Your task to perform on an android device: check android version Image 0: 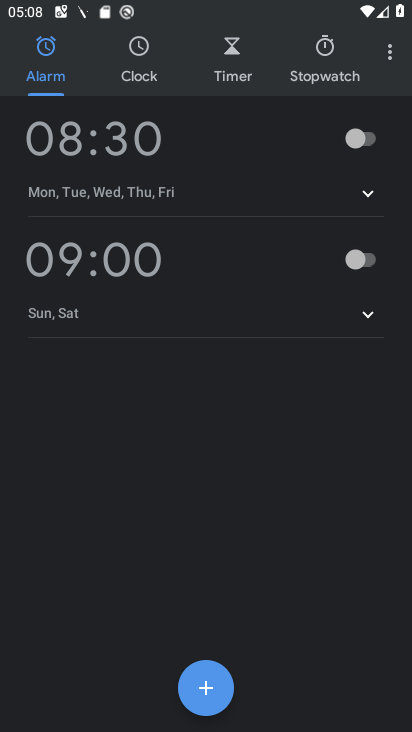
Step 0: press home button
Your task to perform on an android device: check android version Image 1: 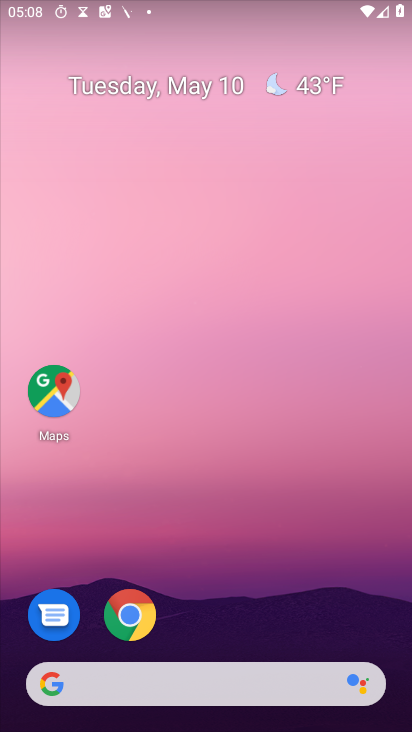
Step 1: drag from (242, 646) to (331, 37)
Your task to perform on an android device: check android version Image 2: 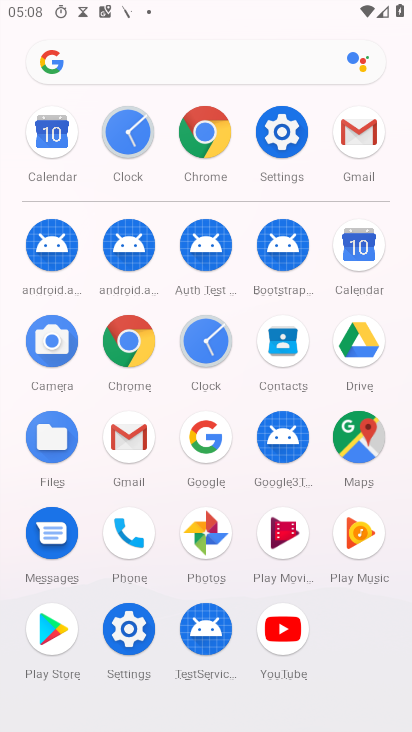
Step 2: click (292, 133)
Your task to perform on an android device: check android version Image 3: 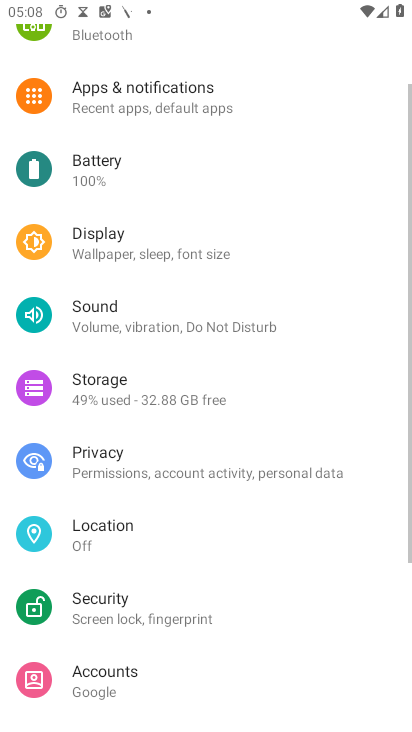
Step 3: drag from (233, 686) to (349, 7)
Your task to perform on an android device: check android version Image 4: 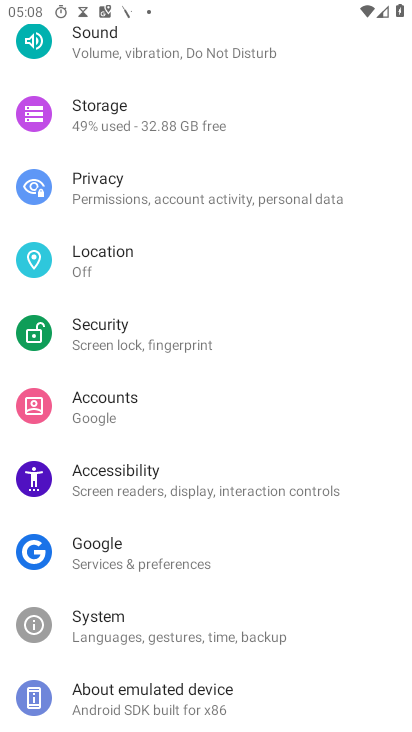
Step 4: click (168, 702)
Your task to perform on an android device: check android version Image 5: 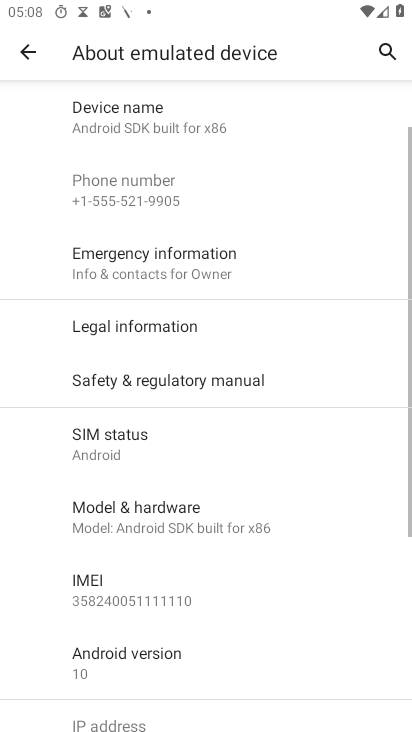
Step 5: drag from (208, 651) to (287, 295)
Your task to perform on an android device: check android version Image 6: 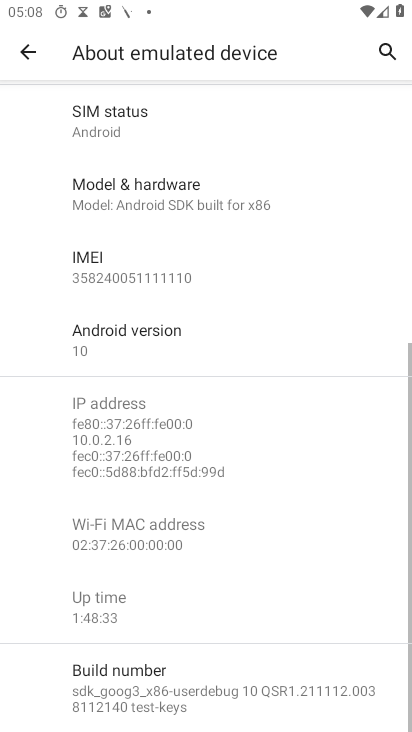
Step 6: click (167, 337)
Your task to perform on an android device: check android version Image 7: 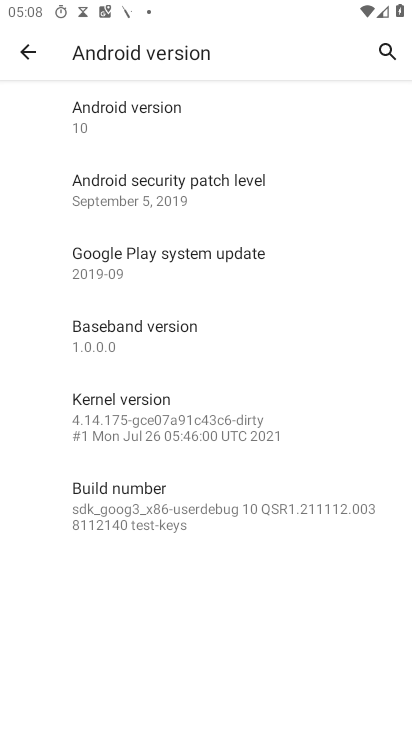
Step 7: task complete